Your task to perform on an android device: allow cookies in the chrome app Image 0: 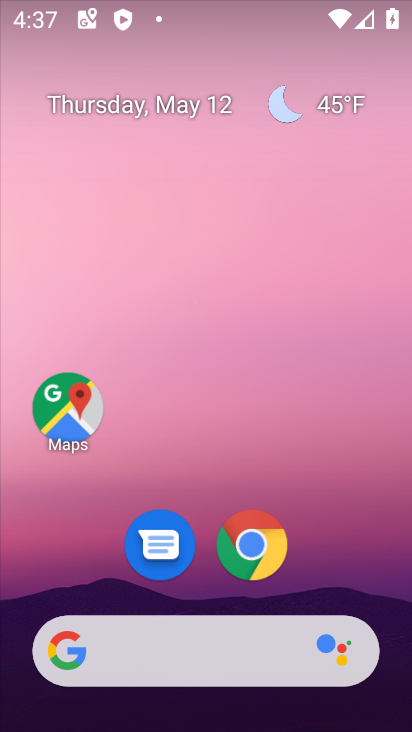
Step 0: click (258, 549)
Your task to perform on an android device: allow cookies in the chrome app Image 1: 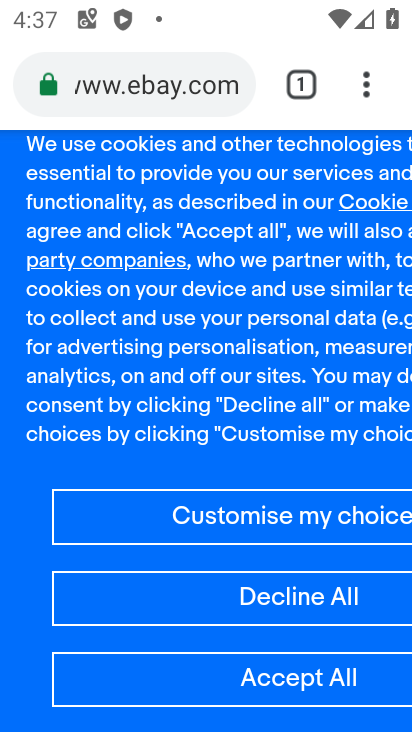
Step 1: drag from (375, 76) to (124, 596)
Your task to perform on an android device: allow cookies in the chrome app Image 2: 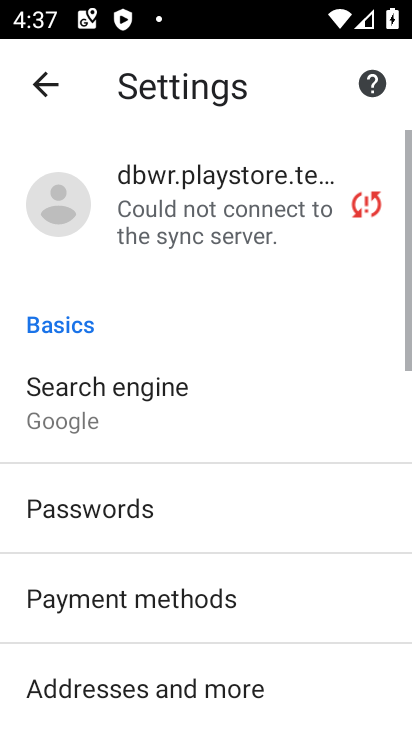
Step 2: drag from (257, 629) to (244, 58)
Your task to perform on an android device: allow cookies in the chrome app Image 3: 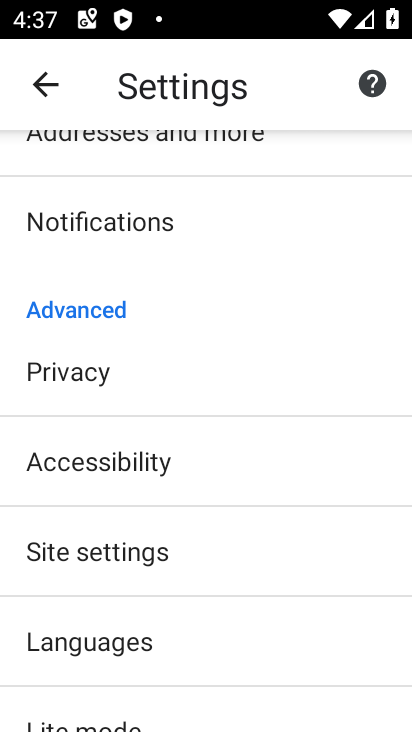
Step 3: drag from (187, 527) to (284, 173)
Your task to perform on an android device: allow cookies in the chrome app Image 4: 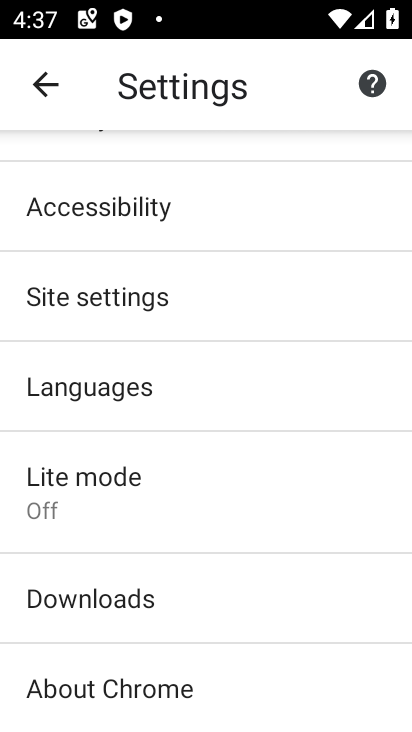
Step 4: drag from (250, 488) to (309, 254)
Your task to perform on an android device: allow cookies in the chrome app Image 5: 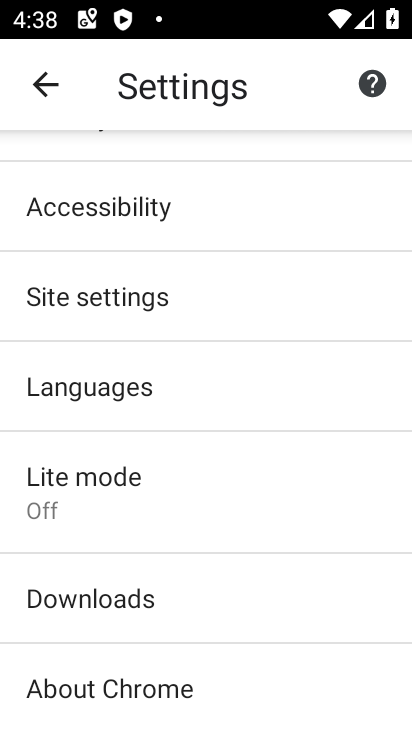
Step 5: drag from (170, 559) to (166, 194)
Your task to perform on an android device: allow cookies in the chrome app Image 6: 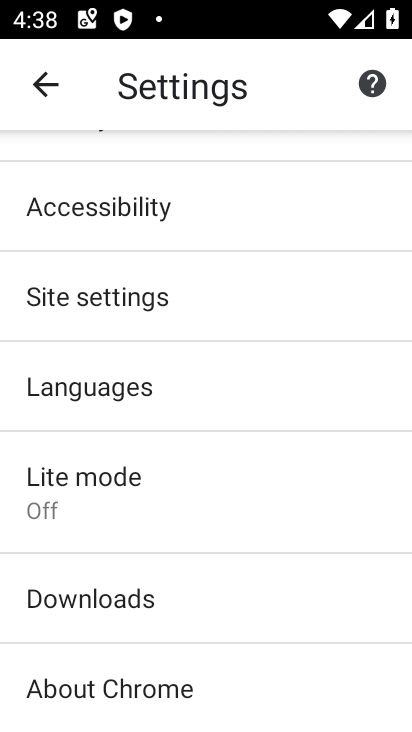
Step 6: click (128, 298)
Your task to perform on an android device: allow cookies in the chrome app Image 7: 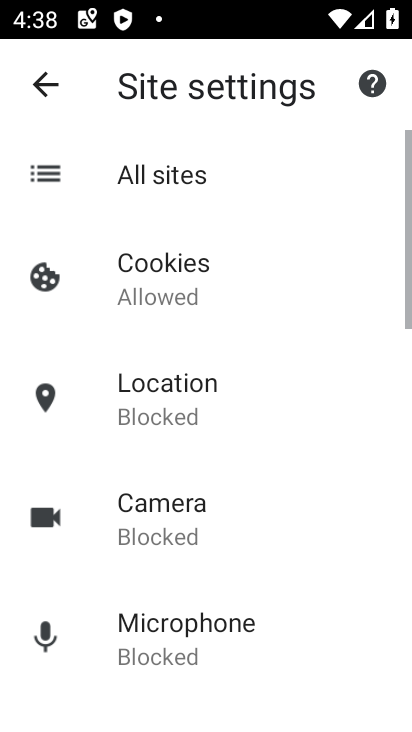
Step 7: click (166, 280)
Your task to perform on an android device: allow cookies in the chrome app Image 8: 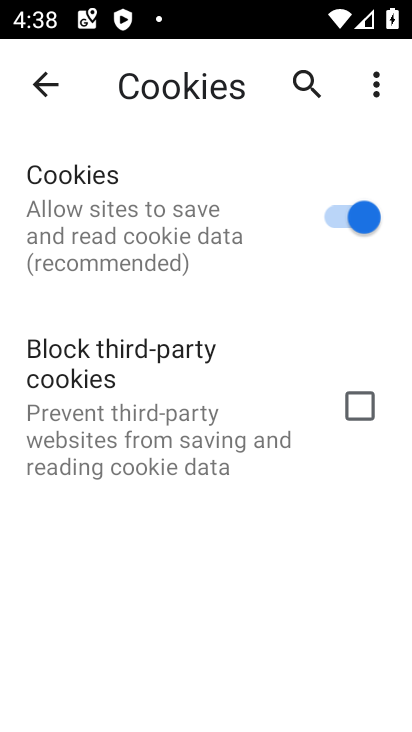
Step 8: task complete